Your task to perform on an android device: Open wifi settings Image 0: 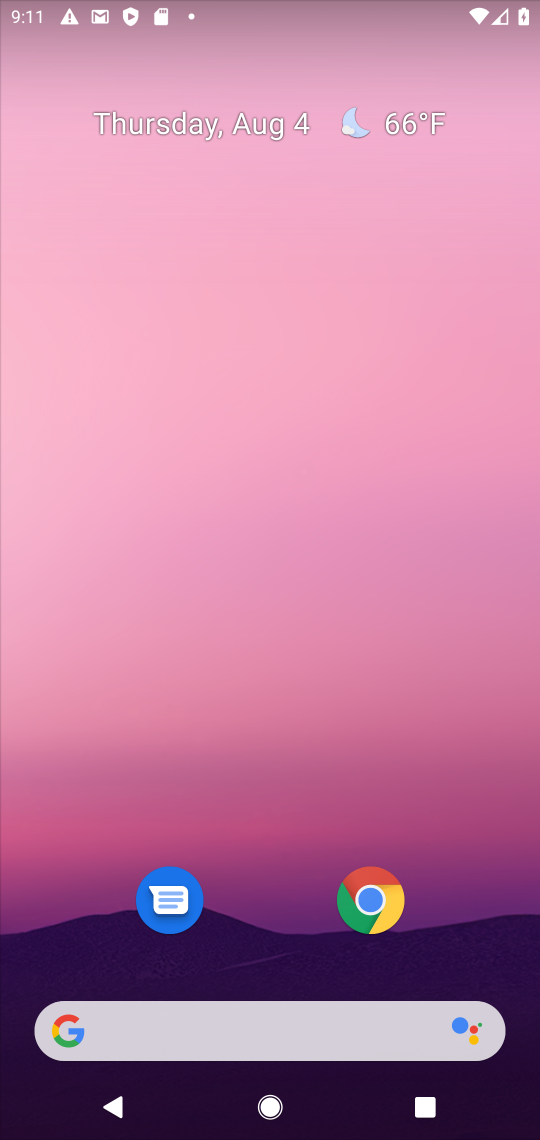
Step 0: drag from (206, 896) to (42, 78)
Your task to perform on an android device: Open wifi settings Image 1: 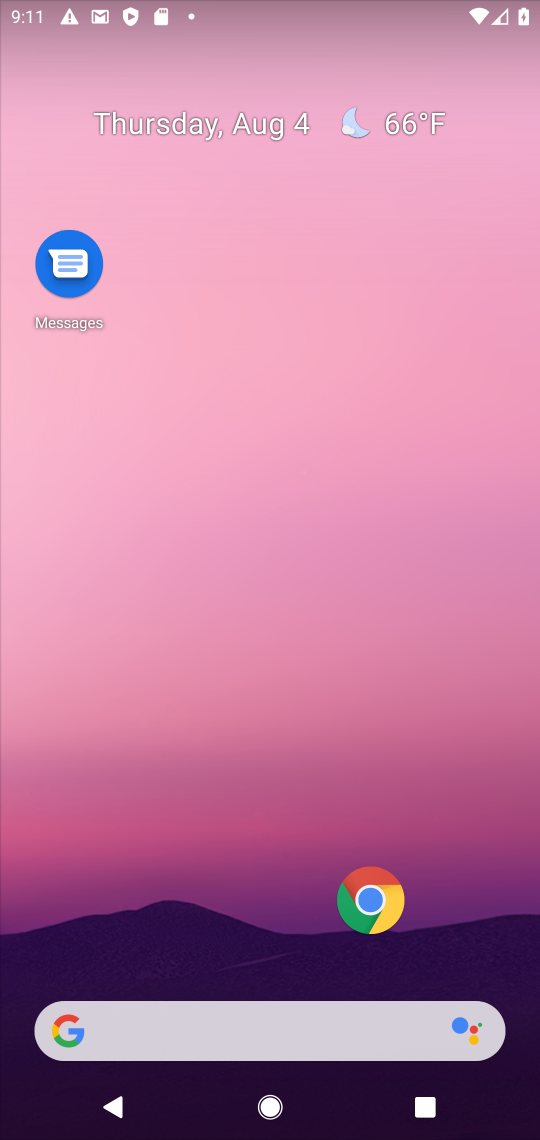
Step 1: click (347, 453)
Your task to perform on an android device: Open wifi settings Image 2: 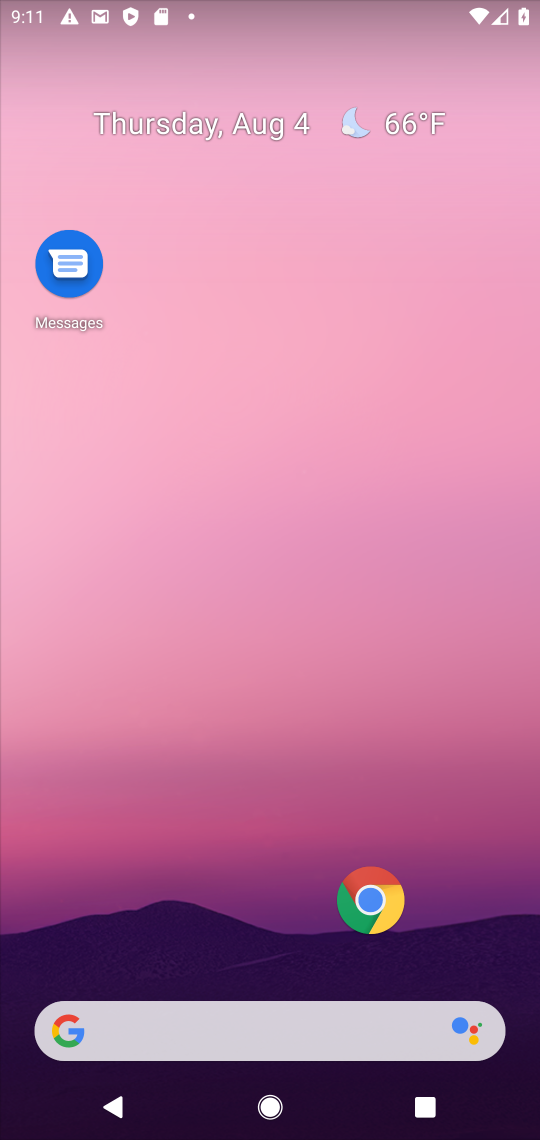
Step 2: drag from (263, 945) to (417, 18)
Your task to perform on an android device: Open wifi settings Image 3: 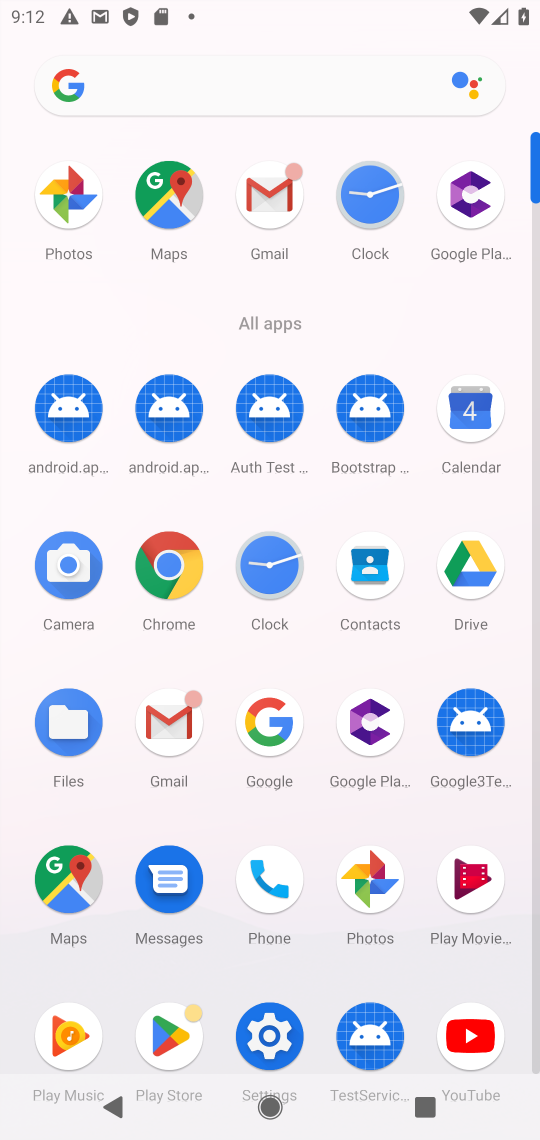
Step 3: click (277, 1054)
Your task to perform on an android device: Open wifi settings Image 4: 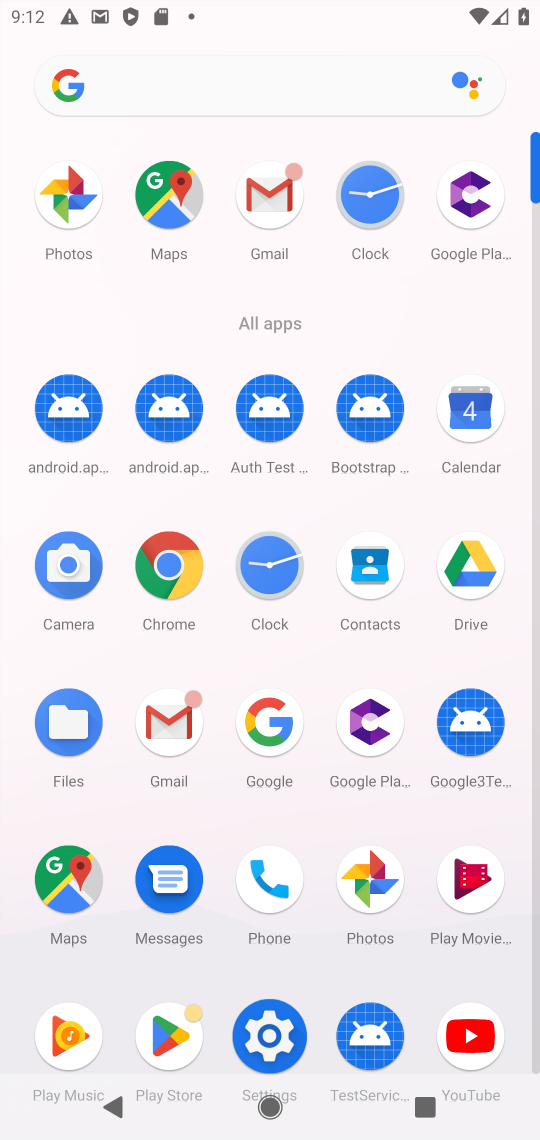
Step 4: click (277, 1054)
Your task to perform on an android device: Open wifi settings Image 5: 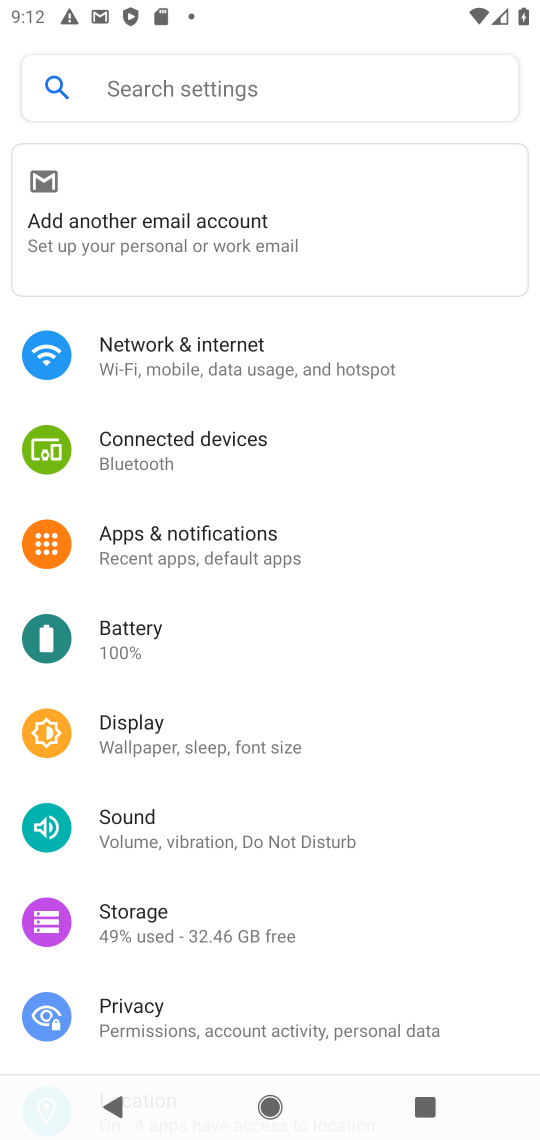
Step 5: click (223, 347)
Your task to perform on an android device: Open wifi settings Image 6: 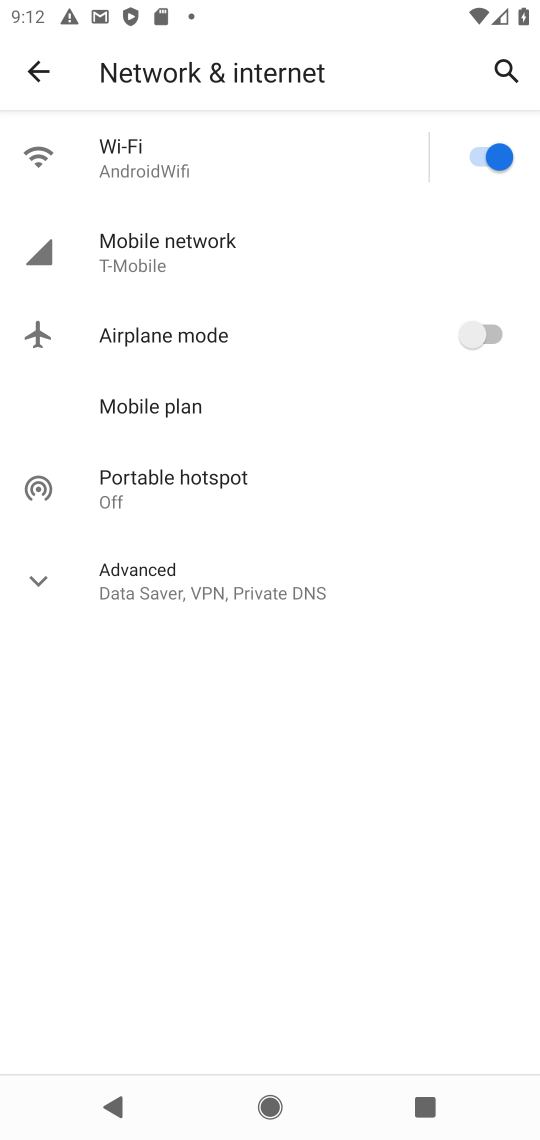
Step 6: click (154, 166)
Your task to perform on an android device: Open wifi settings Image 7: 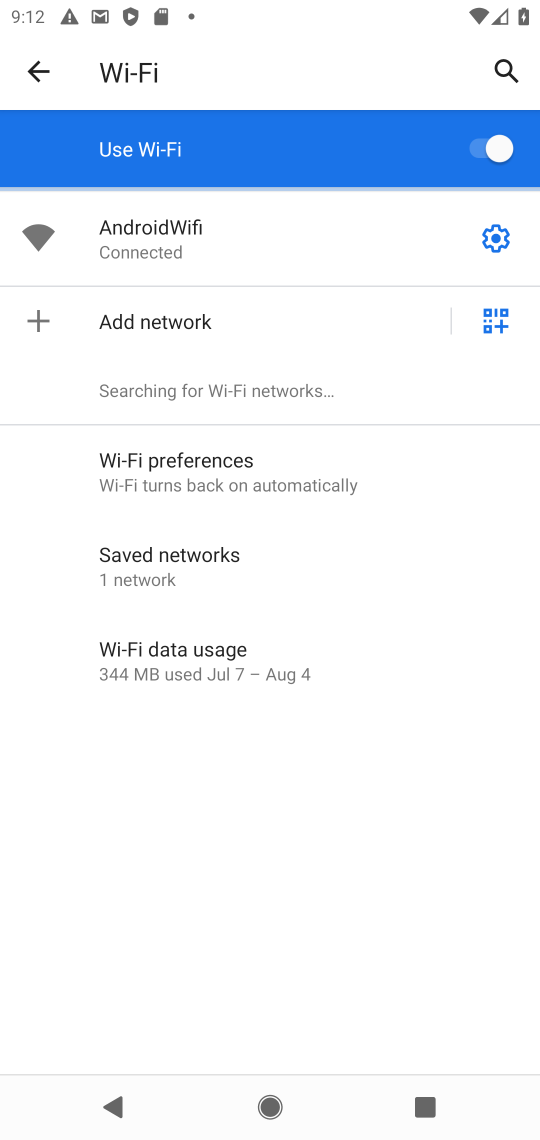
Step 7: task complete